Your task to perform on an android device: Go to accessibility settings Image 0: 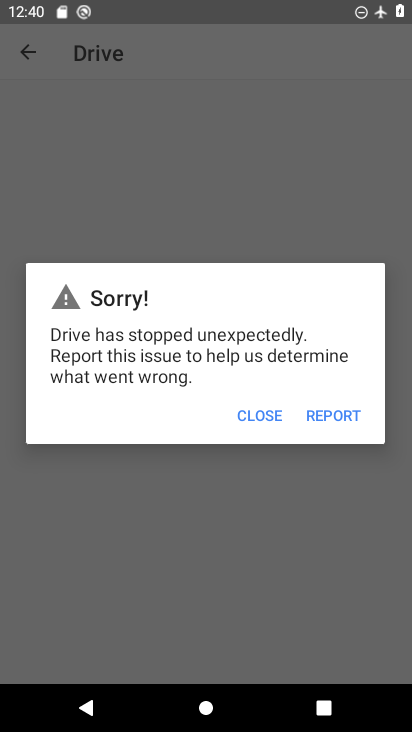
Step 0: press home button
Your task to perform on an android device: Go to accessibility settings Image 1: 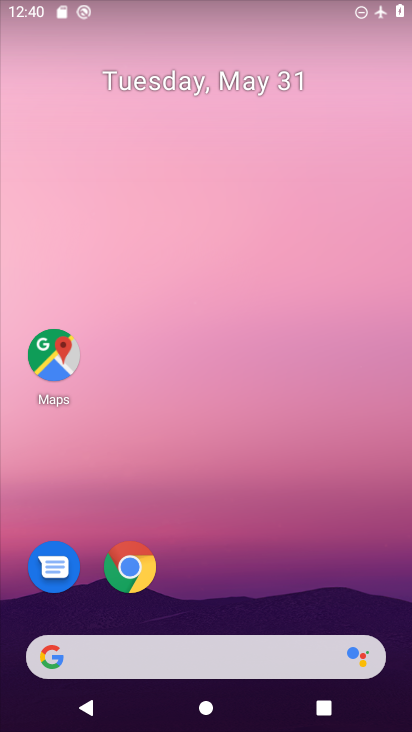
Step 1: drag from (197, 602) to (201, 257)
Your task to perform on an android device: Go to accessibility settings Image 2: 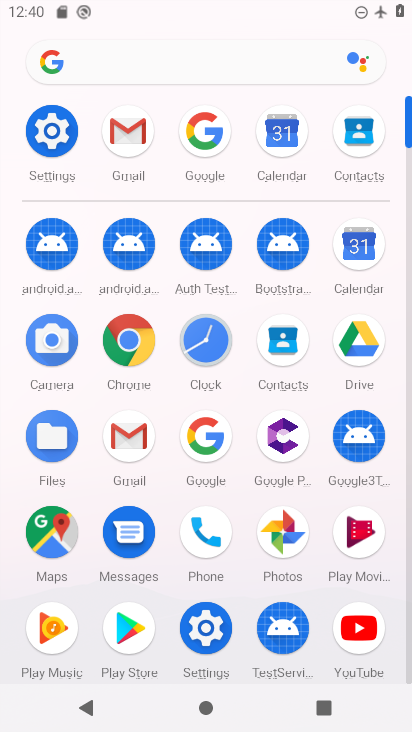
Step 2: click (77, 122)
Your task to perform on an android device: Go to accessibility settings Image 3: 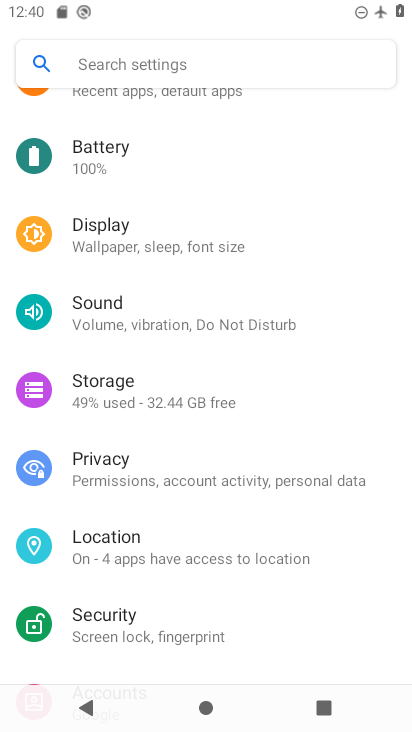
Step 3: drag from (92, 628) to (192, 260)
Your task to perform on an android device: Go to accessibility settings Image 4: 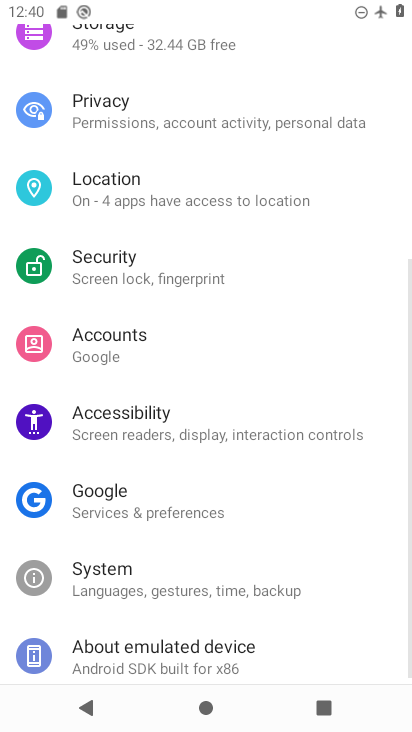
Step 4: click (183, 437)
Your task to perform on an android device: Go to accessibility settings Image 5: 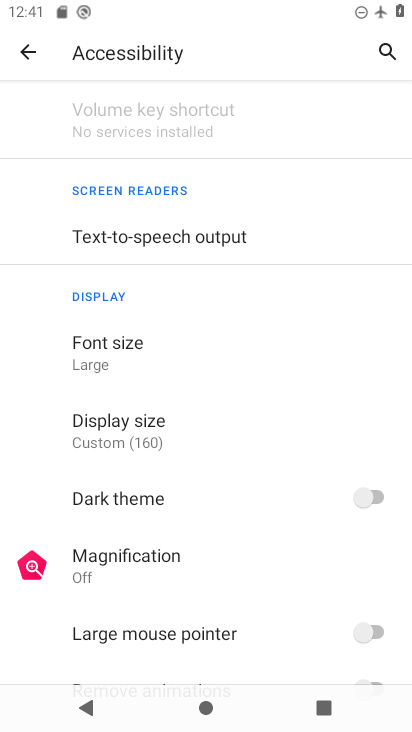
Step 5: task complete